Your task to perform on an android device: Go to battery settings Image 0: 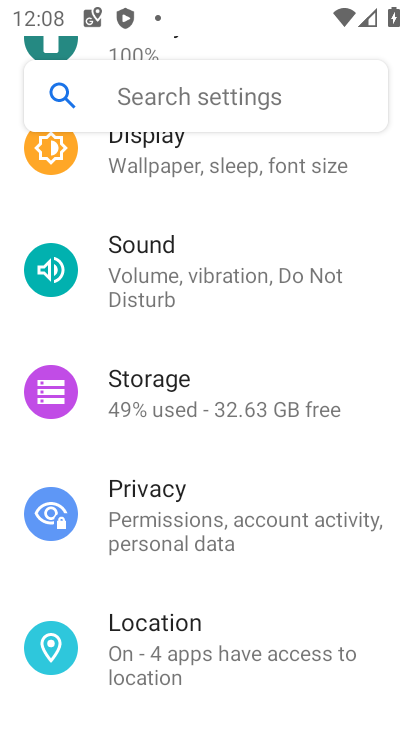
Step 0: press home button
Your task to perform on an android device: Go to battery settings Image 1: 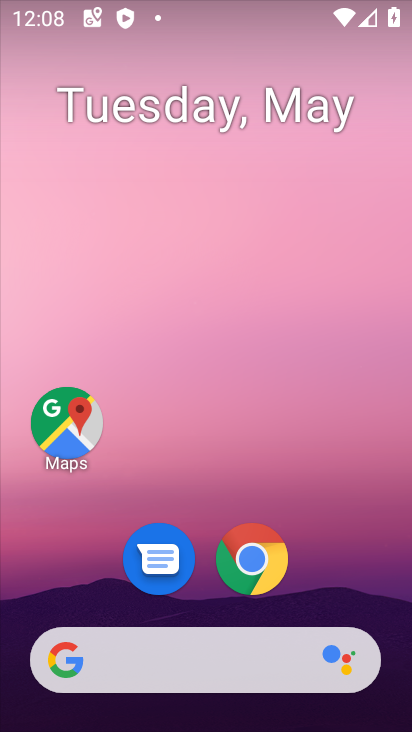
Step 1: drag from (321, 606) to (354, 53)
Your task to perform on an android device: Go to battery settings Image 2: 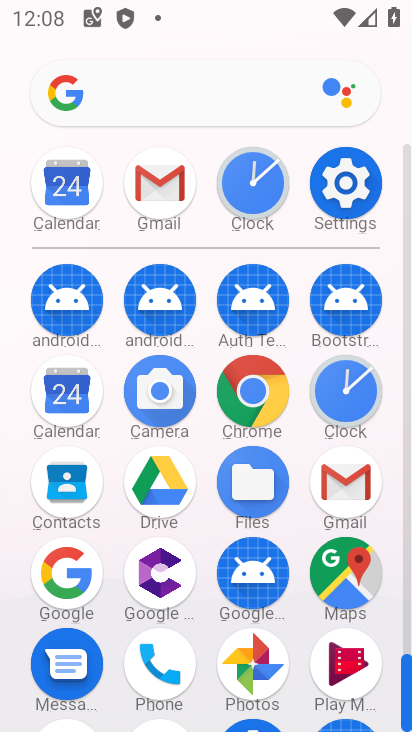
Step 2: click (349, 188)
Your task to perform on an android device: Go to battery settings Image 3: 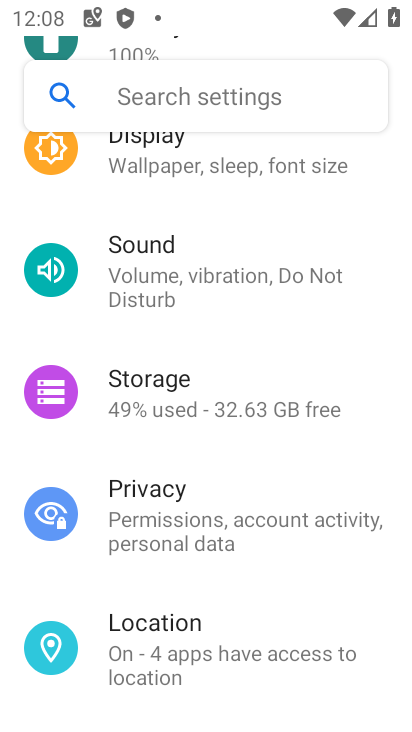
Step 3: click (245, 229)
Your task to perform on an android device: Go to battery settings Image 4: 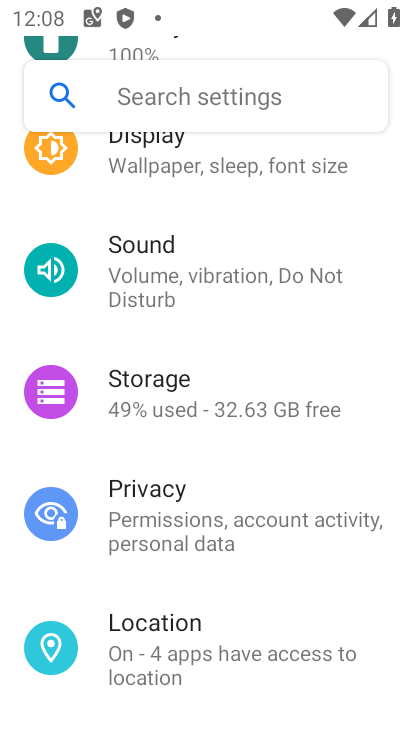
Step 4: drag from (245, 229) to (292, 531)
Your task to perform on an android device: Go to battery settings Image 5: 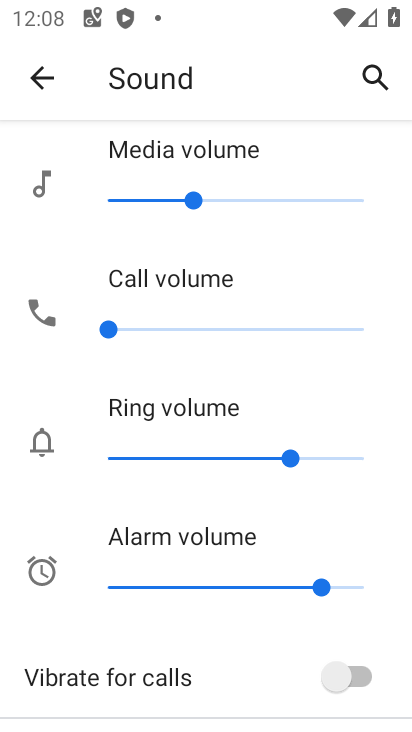
Step 5: click (35, 89)
Your task to perform on an android device: Go to battery settings Image 6: 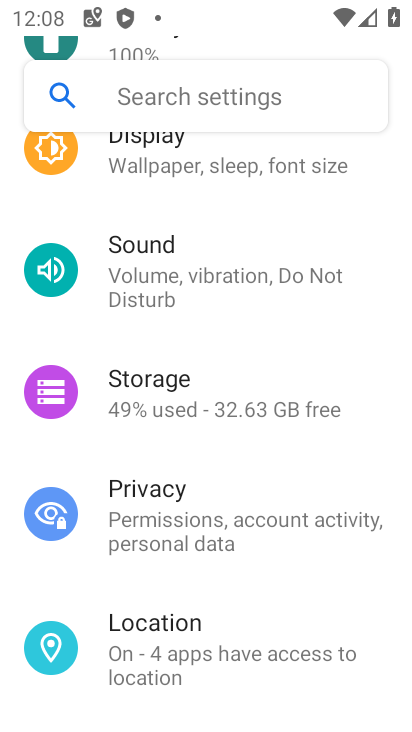
Step 6: click (117, 46)
Your task to perform on an android device: Go to battery settings Image 7: 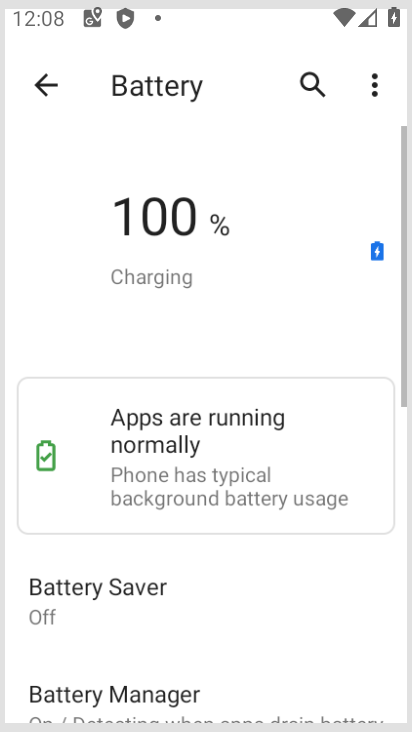
Step 7: task complete